Your task to perform on an android device: check out phone information Image 0: 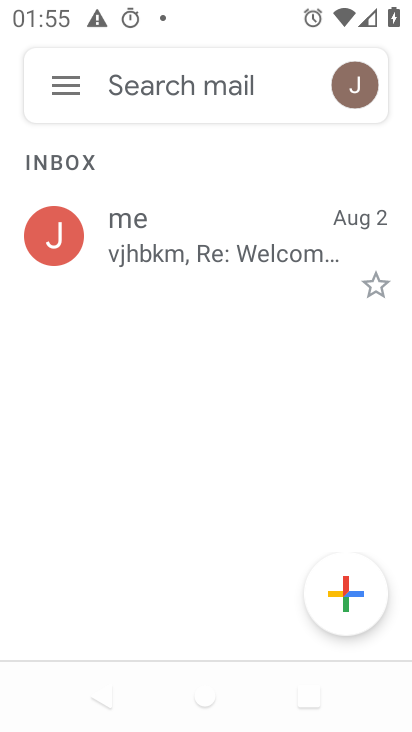
Step 0: press back button
Your task to perform on an android device: check out phone information Image 1: 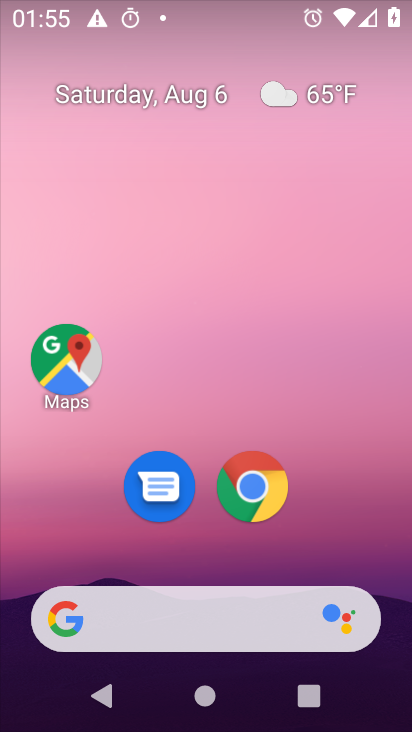
Step 1: drag from (219, 392) to (276, 50)
Your task to perform on an android device: check out phone information Image 2: 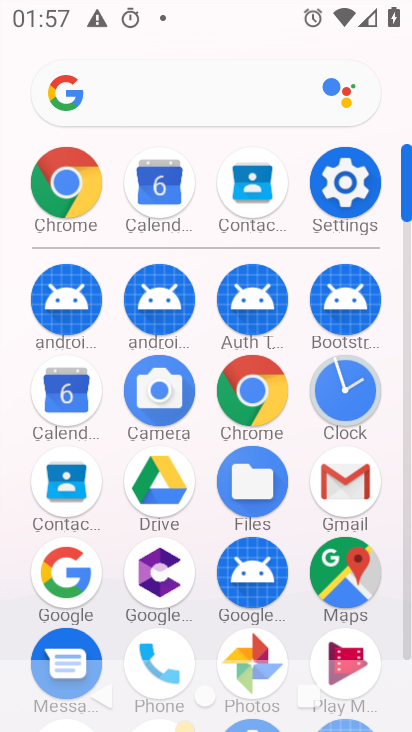
Step 2: click (333, 178)
Your task to perform on an android device: check out phone information Image 3: 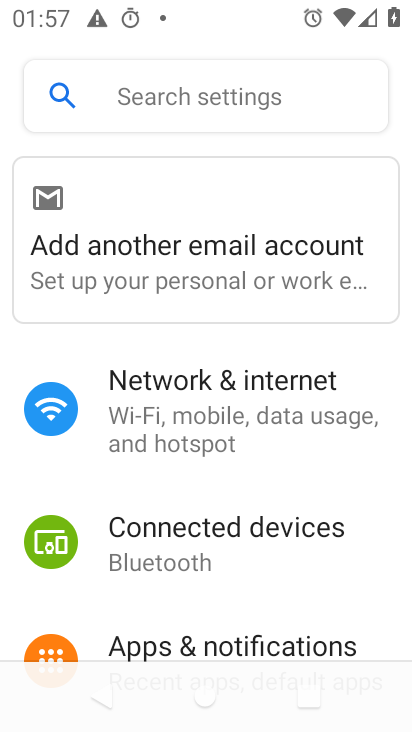
Step 3: drag from (251, 565) to (248, 99)
Your task to perform on an android device: check out phone information Image 4: 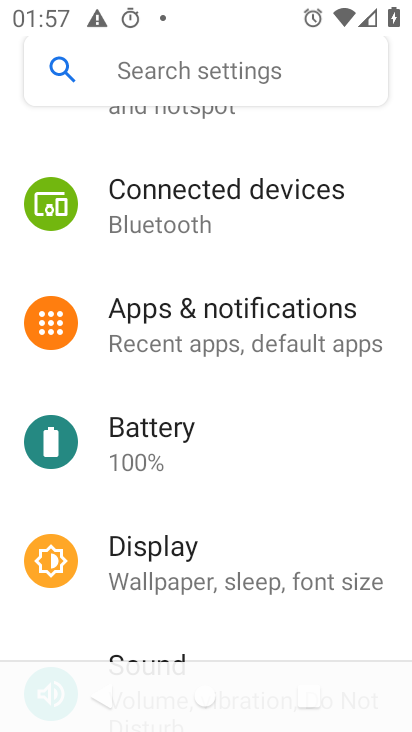
Step 4: drag from (243, 552) to (276, 72)
Your task to perform on an android device: check out phone information Image 5: 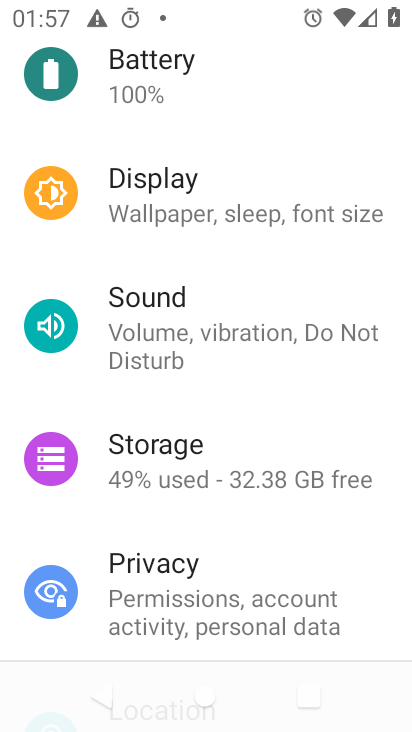
Step 5: drag from (189, 628) to (310, 60)
Your task to perform on an android device: check out phone information Image 6: 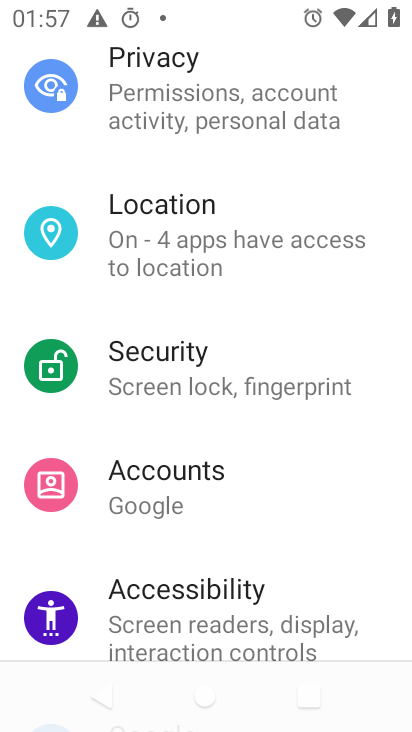
Step 6: drag from (152, 635) to (291, 21)
Your task to perform on an android device: check out phone information Image 7: 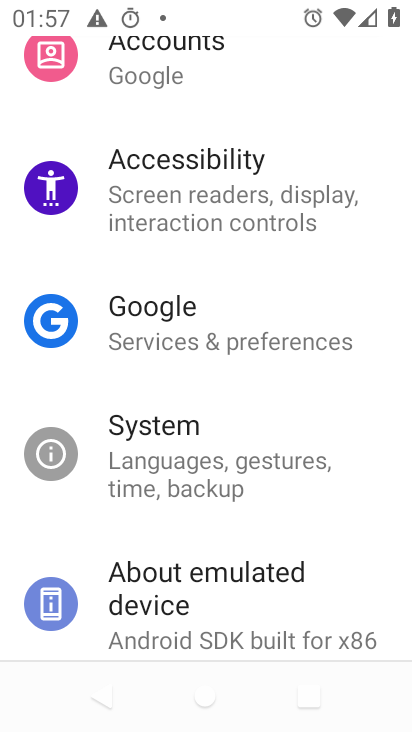
Step 7: drag from (191, 559) to (258, 111)
Your task to perform on an android device: check out phone information Image 8: 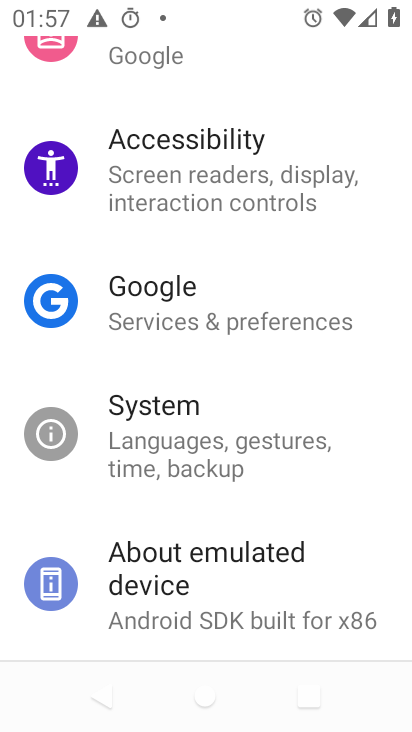
Step 8: click (186, 595)
Your task to perform on an android device: check out phone information Image 9: 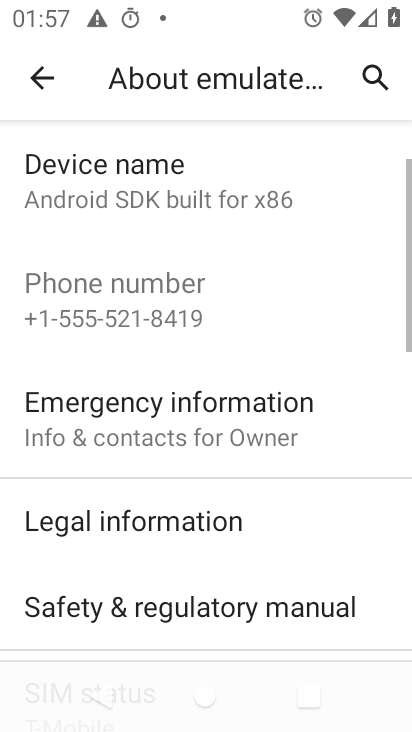
Step 9: task complete